Your task to perform on an android device: Open CNN.com Image 0: 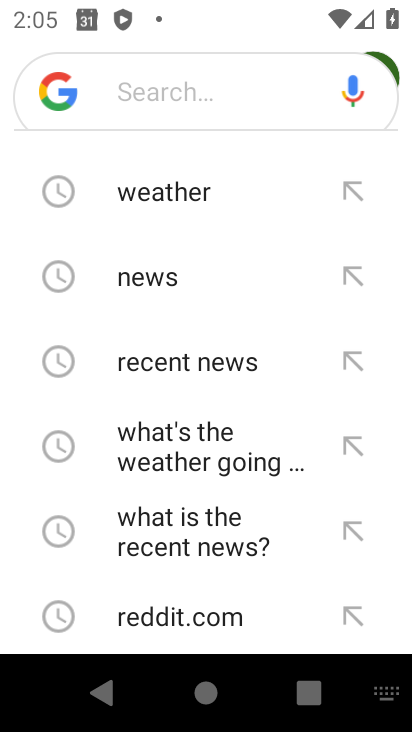
Step 0: press home button
Your task to perform on an android device: Open CNN.com Image 1: 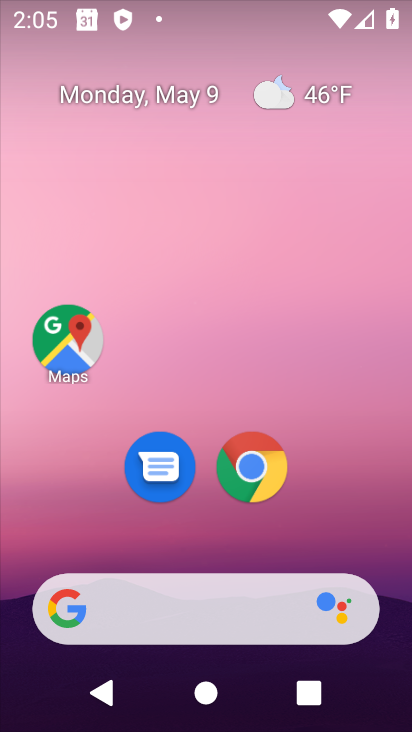
Step 1: click (261, 460)
Your task to perform on an android device: Open CNN.com Image 2: 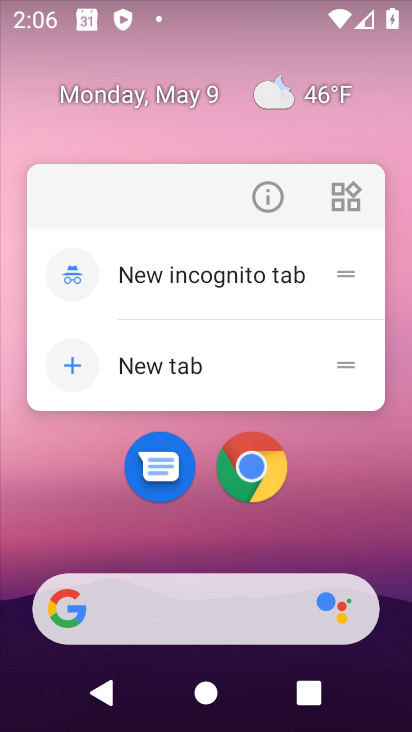
Step 2: click (245, 462)
Your task to perform on an android device: Open CNN.com Image 3: 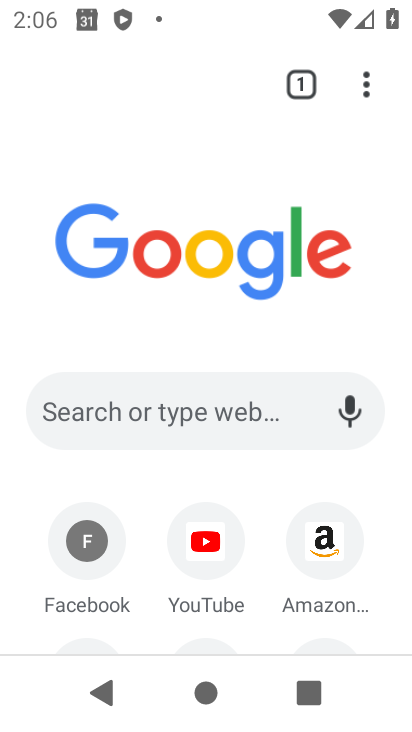
Step 3: drag from (399, 263) to (411, 426)
Your task to perform on an android device: Open CNN.com Image 4: 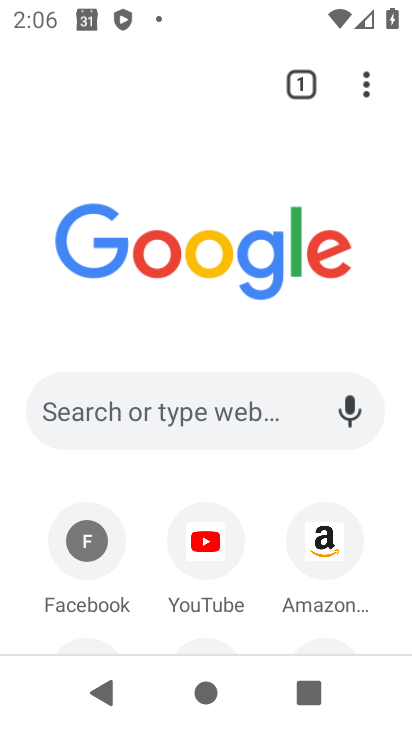
Step 4: click (250, 389)
Your task to perform on an android device: Open CNN.com Image 5: 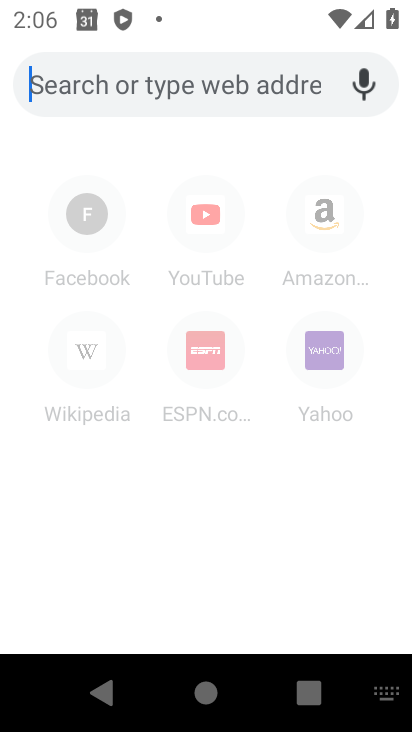
Step 5: type "cnn.com"
Your task to perform on an android device: Open CNN.com Image 6: 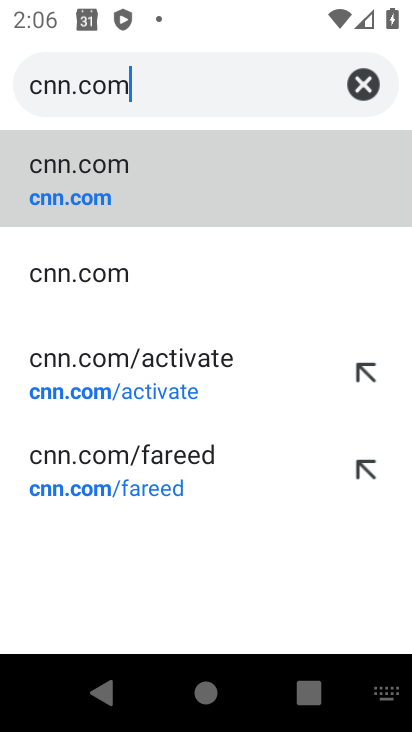
Step 6: click (79, 183)
Your task to perform on an android device: Open CNN.com Image 7: 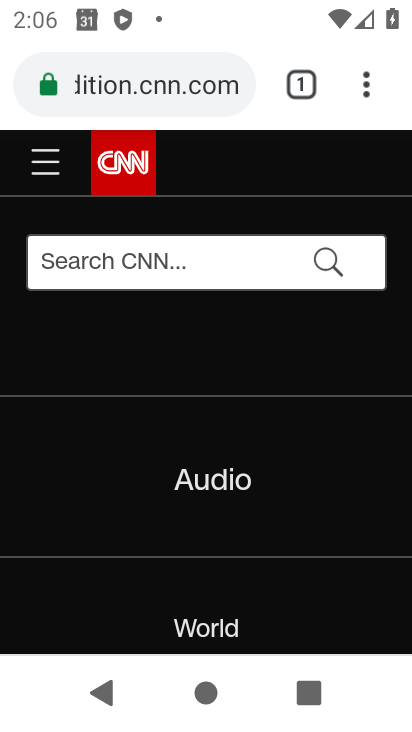
Step 7: task complete